Your task to perform on an android device: Show the shopping cart on ebay.com. Add razer thresher to the cart on ebay.com Image 0: 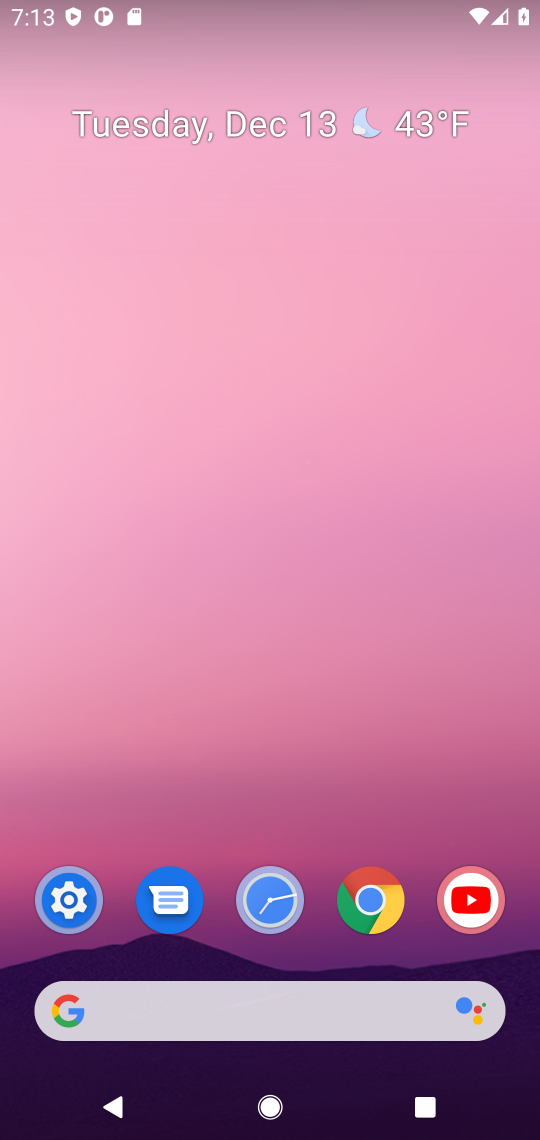
Step 0: task complete